Your task to perform on an android device: turn off picture-in-picture Image 0: 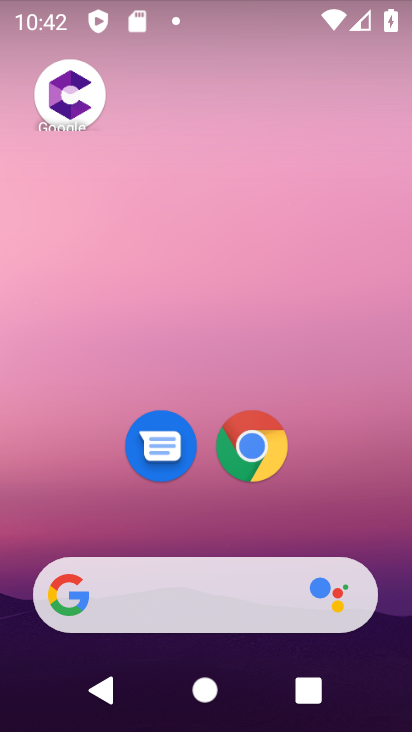
Step 0: drag from (197, 495) to (200, 159)
Your task to perform on an android device: turn off picture-in-picture Image 1: 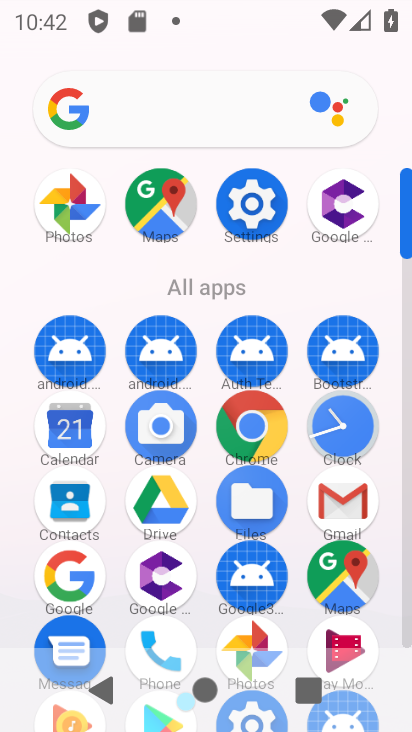
Step 1: click (255, 193)
Your task to perform on an android device: turn off picture-in-picture Image 2: 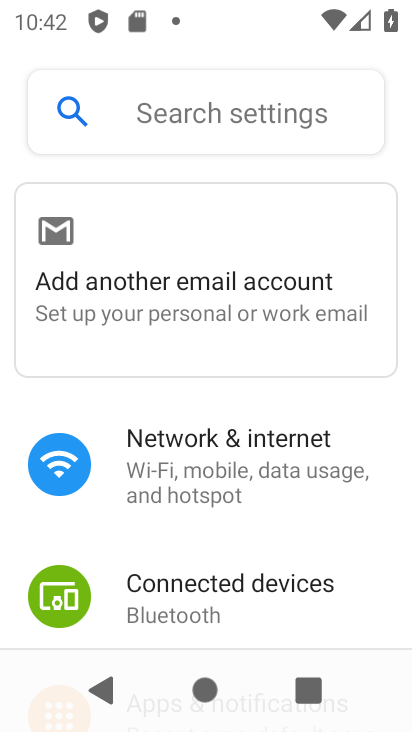
Step 2: drag from (227, 578) to (315, 87)
Your task to perform on an android device: turn off picture-in-picture Image 3: 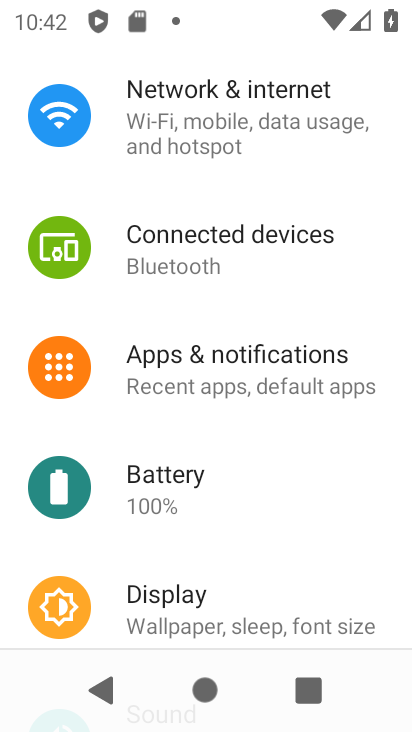
Step 3: drag from (232, 618) to (322, 108)
Your task to perform on an android device: turn off picture-in-picture Image 4: 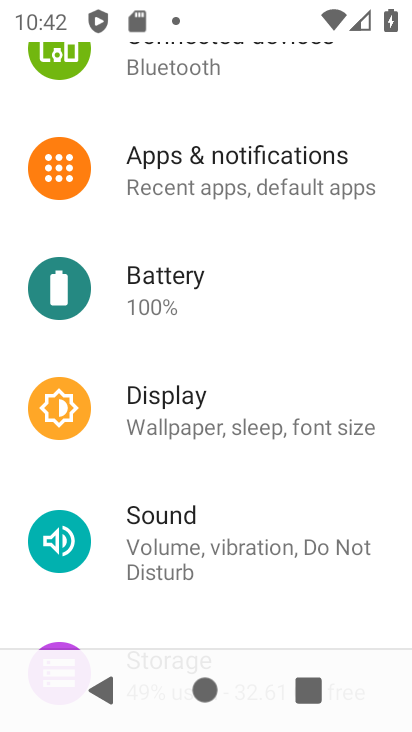
Step 4: drag from (213, 570) to (261, 215)
Your task to perform on an android device: turn off picture-in-picture Image 5: 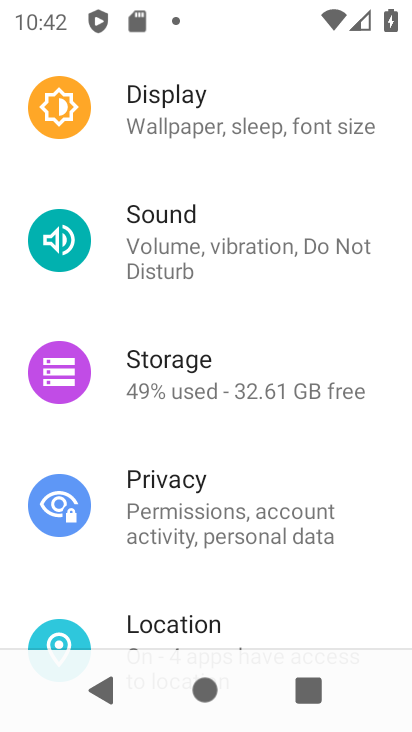
Step 5: drag from (233, 172) to (219, 602)
Your task to perform on an android device: turn off picture-in-picture Image 6: 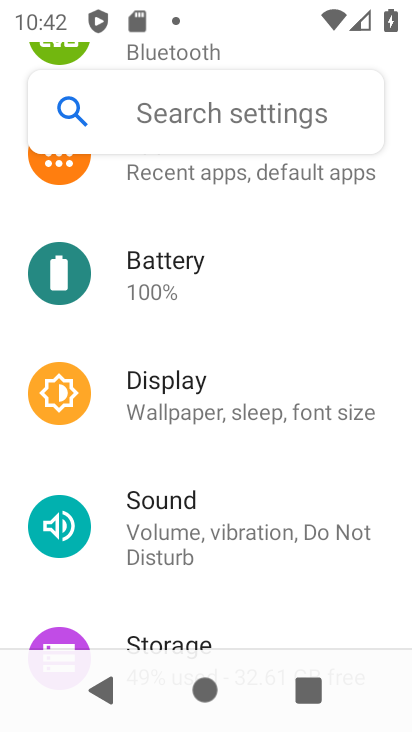
Step 6: drag from (222, 291) to (249, 659)
Your task to perform on an android device: turn off picture-in-picture Image 7: 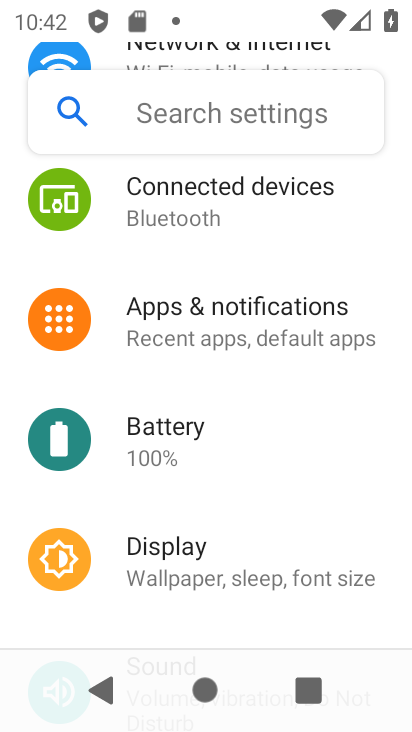
Step 7: click (236, 316)
Your task to perform on an android device: turn off picture-in-picture Image 8: 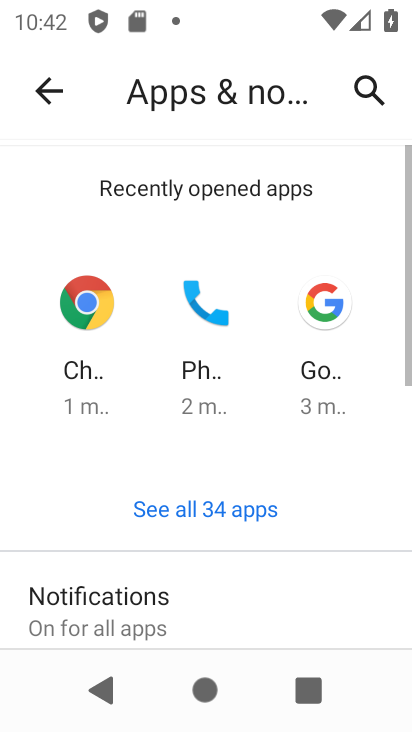
Step 8: drag from (140, 606) to (283, 76)
Your task to perform on an android device: turn off picture-in-picture Image 9: 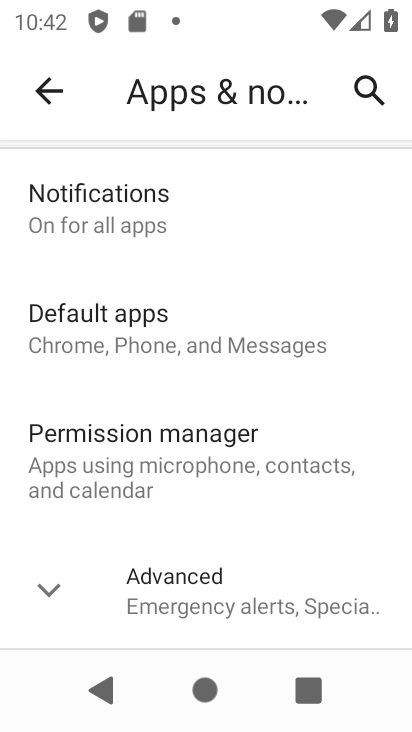
Step 9: click (229, 212)
Your task to perform on an android device: turn off picture-in-picture Image 10: 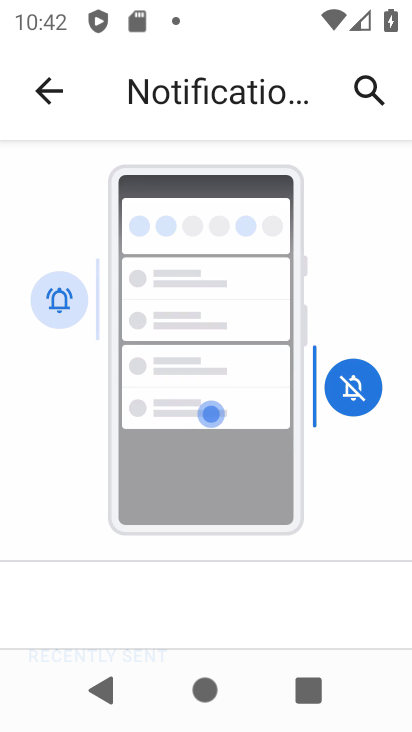
Step 10: click (61, 98)
Your task to perform on an android device: turn off picture-in-picture Image 11: 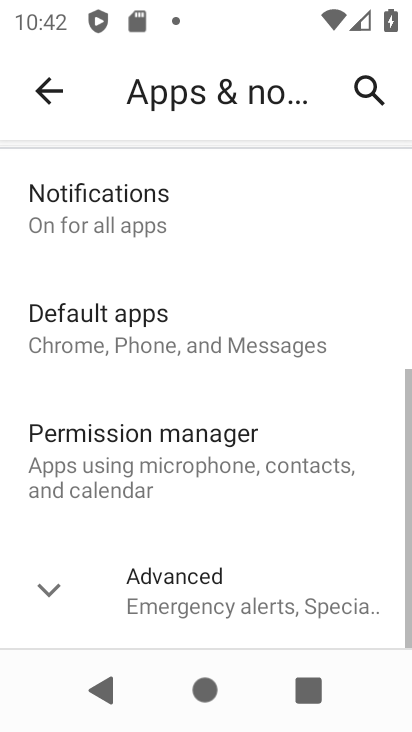
Step 11: click (185, 578)
Your task to perform on an android device: turn off picture-in-picture Image 12: 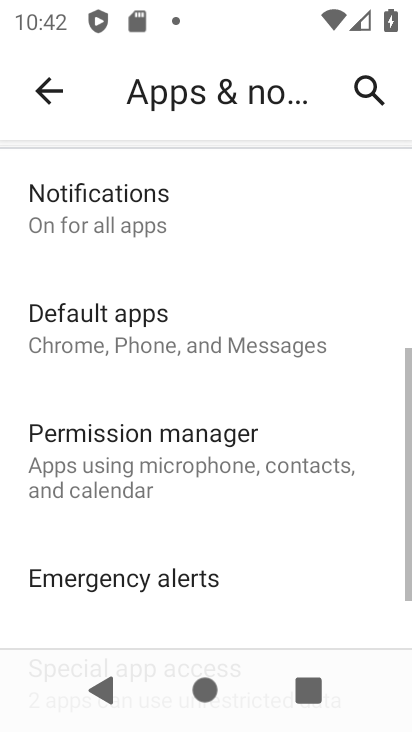
Step 12: drag from (183, 576) to (294, 67)
Your task to perform on an android device: turn off picture-in-picture Image 13: 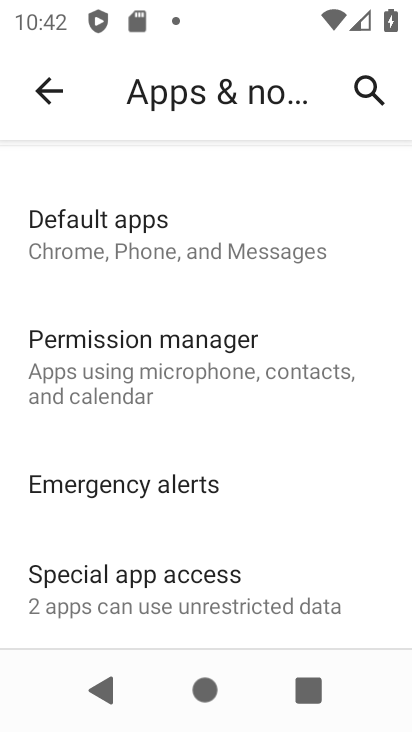
Step 13: click (186, 579)
Your task to perform on an android device: turn off picture-in-picture Image 14: 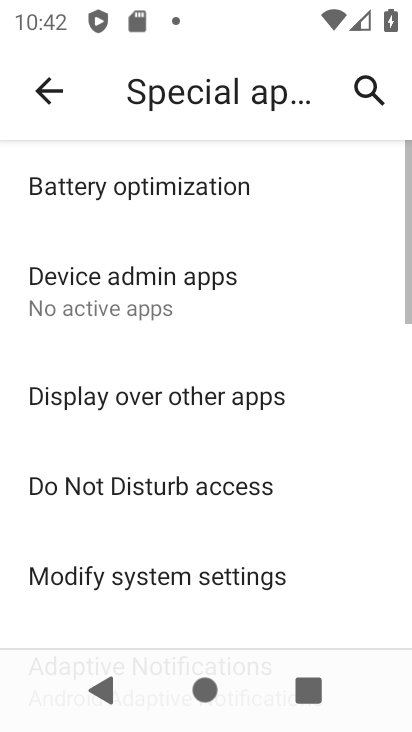
Step 14: drag from (198, 551) to (261, 162)
Your task to perform on an android device: turn off picture-in-picture Image 15: 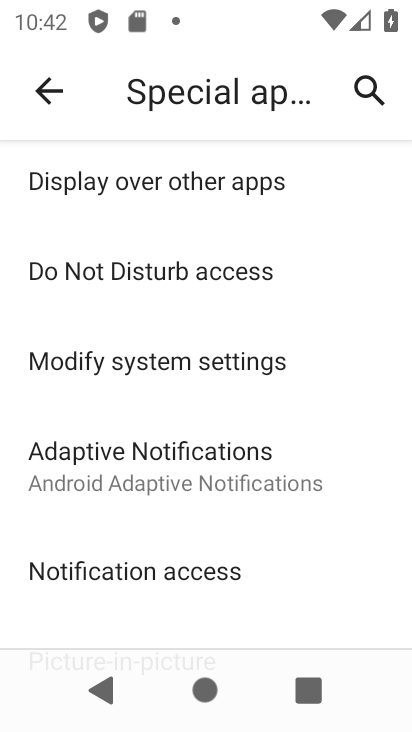
Step 15: drag from (212, 480) to (273, 152)
Your task to perform on an android device: turn off picture-in-picture Image 16: 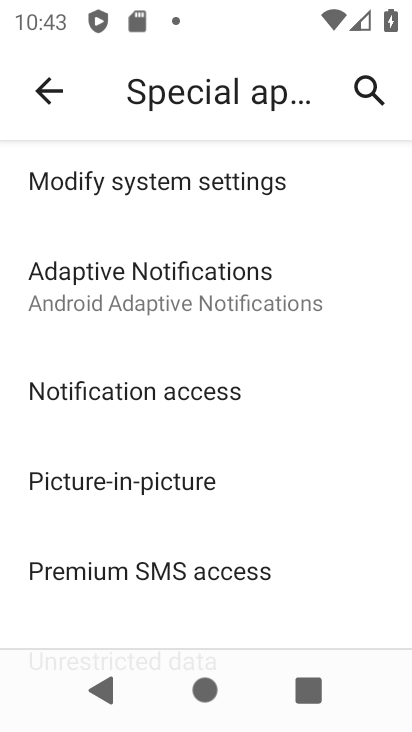
Step 16: click (153, 477)
Your task to perform on an android device: turn off picture-in-picture Image 17: 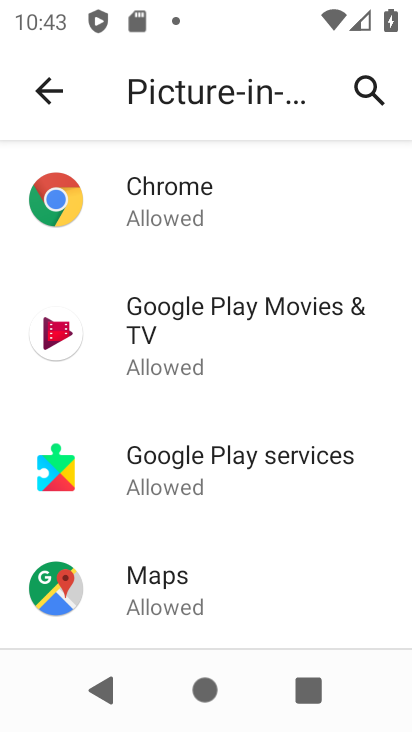
Step 17: task complete